Your task to perform on an android device: install app "Expedia: Hotels, Flights & Car" Image 0: 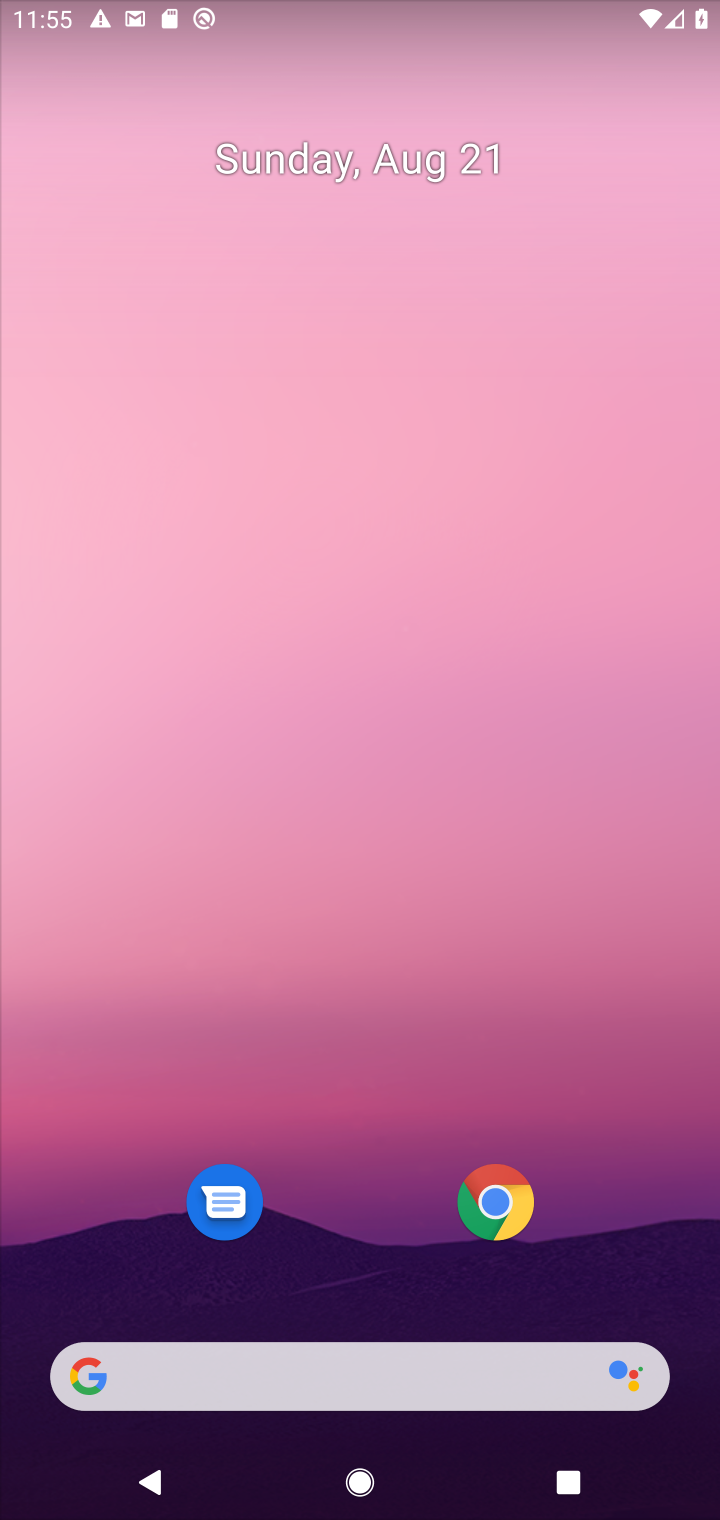
Step 0: drag from (351, 959) to (353, 33)
Your task to perform on an android device: install app "Expedia: Hotels, Flights & Car" Image 1: 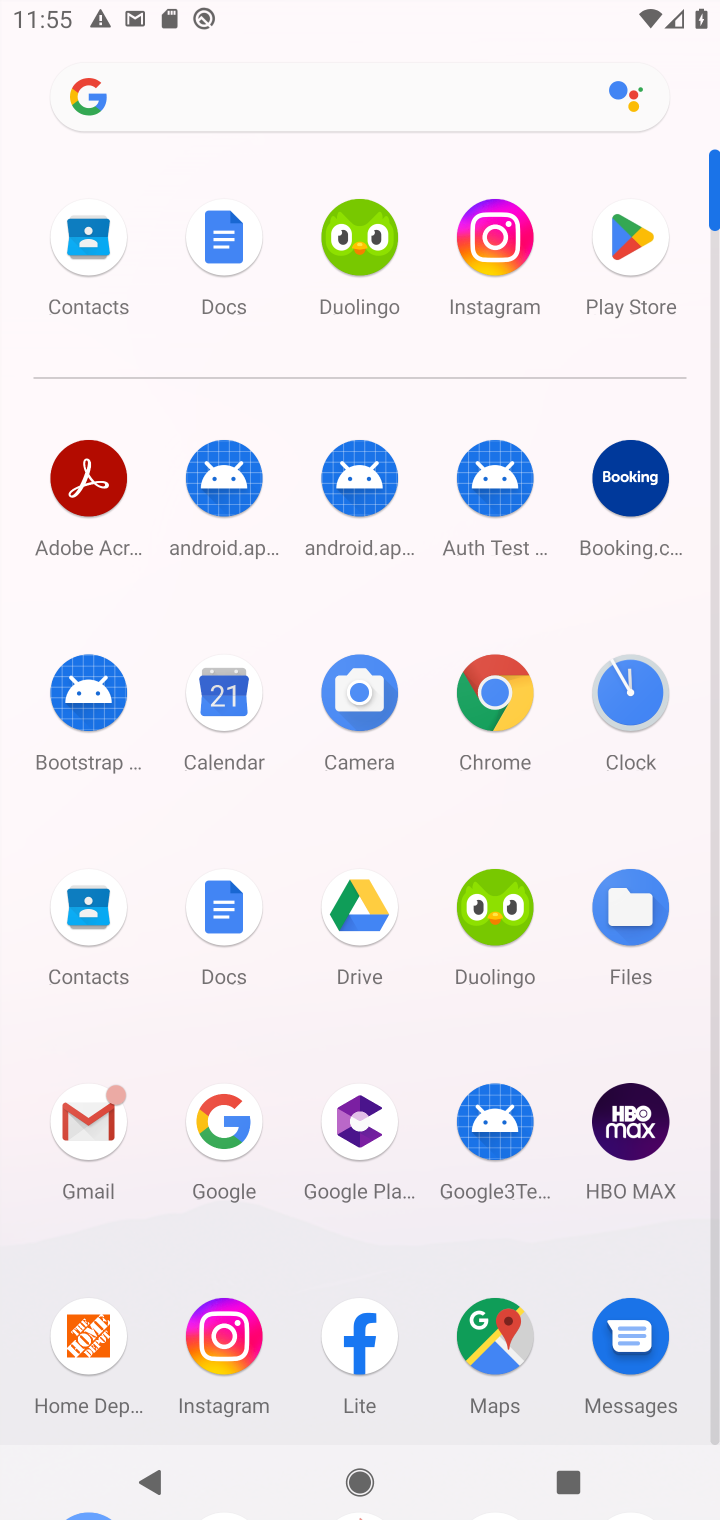
Step 1: click (626, 236)
Your task to perform on an android device: install app "Expedia: Hotels, Flights & Car" Image 2: 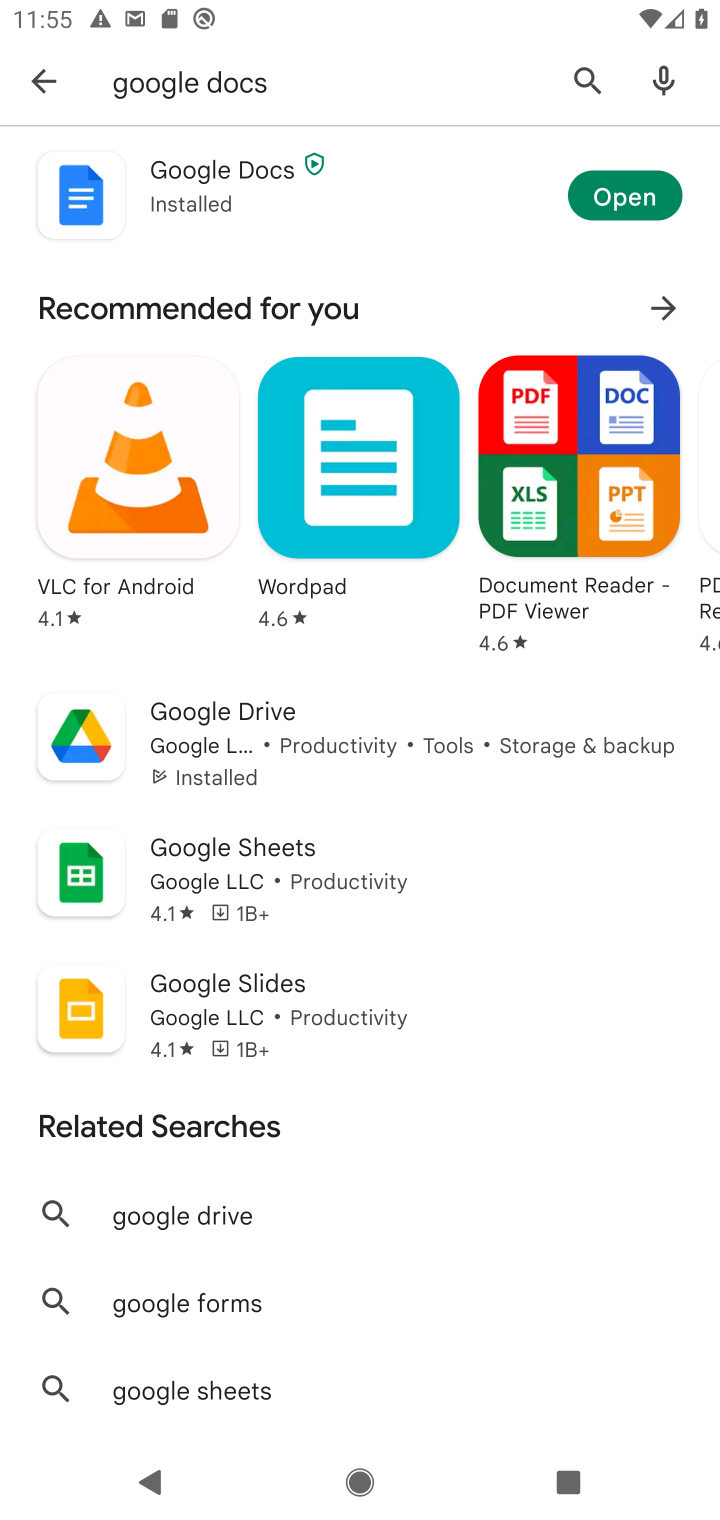
Step 2: click (573, 75)
Your task to perform on an android device: install app "Expedia: Hotels, Flights & Car" Image 3: 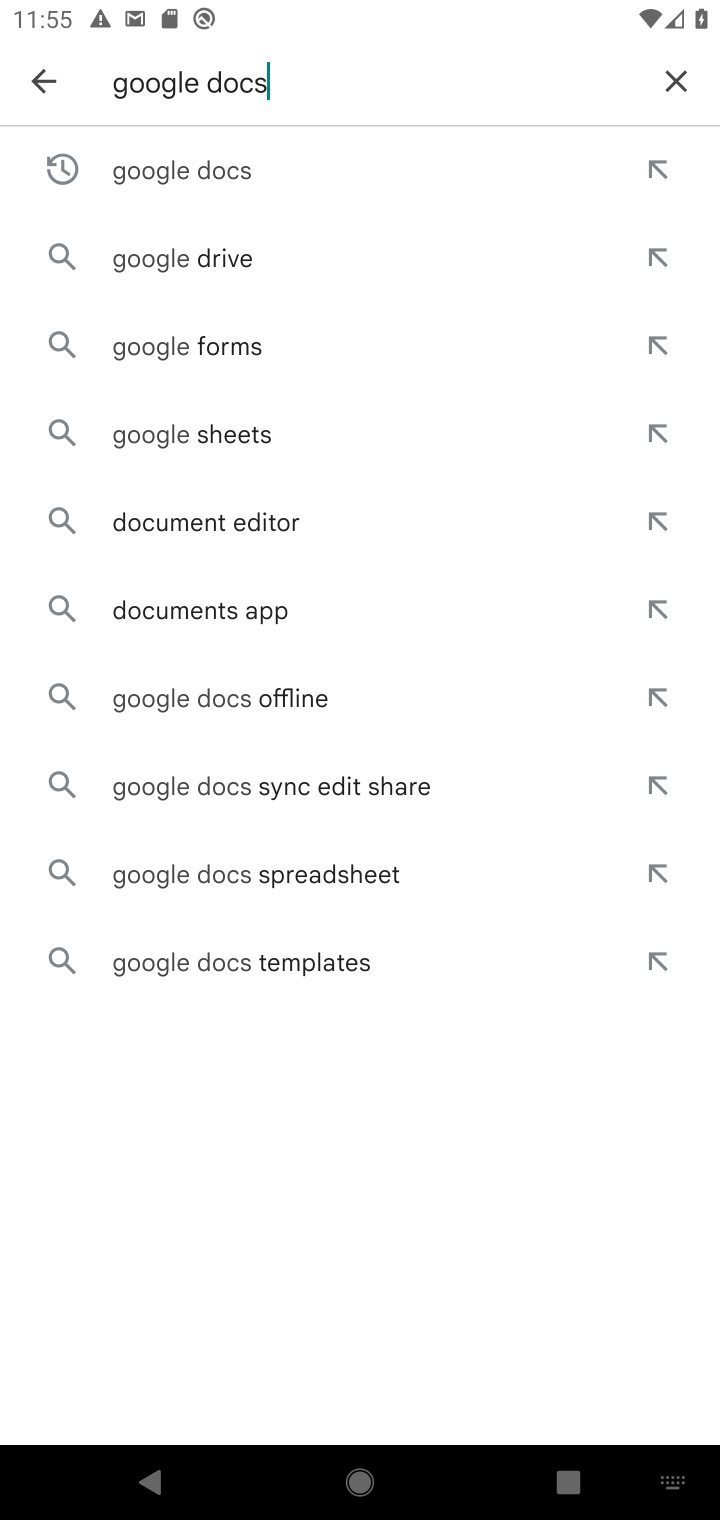
Step 3: click (672, 73)
Your task to perform on an android device: install app "Expedia: Hotels, Flights & Car" Image 4: 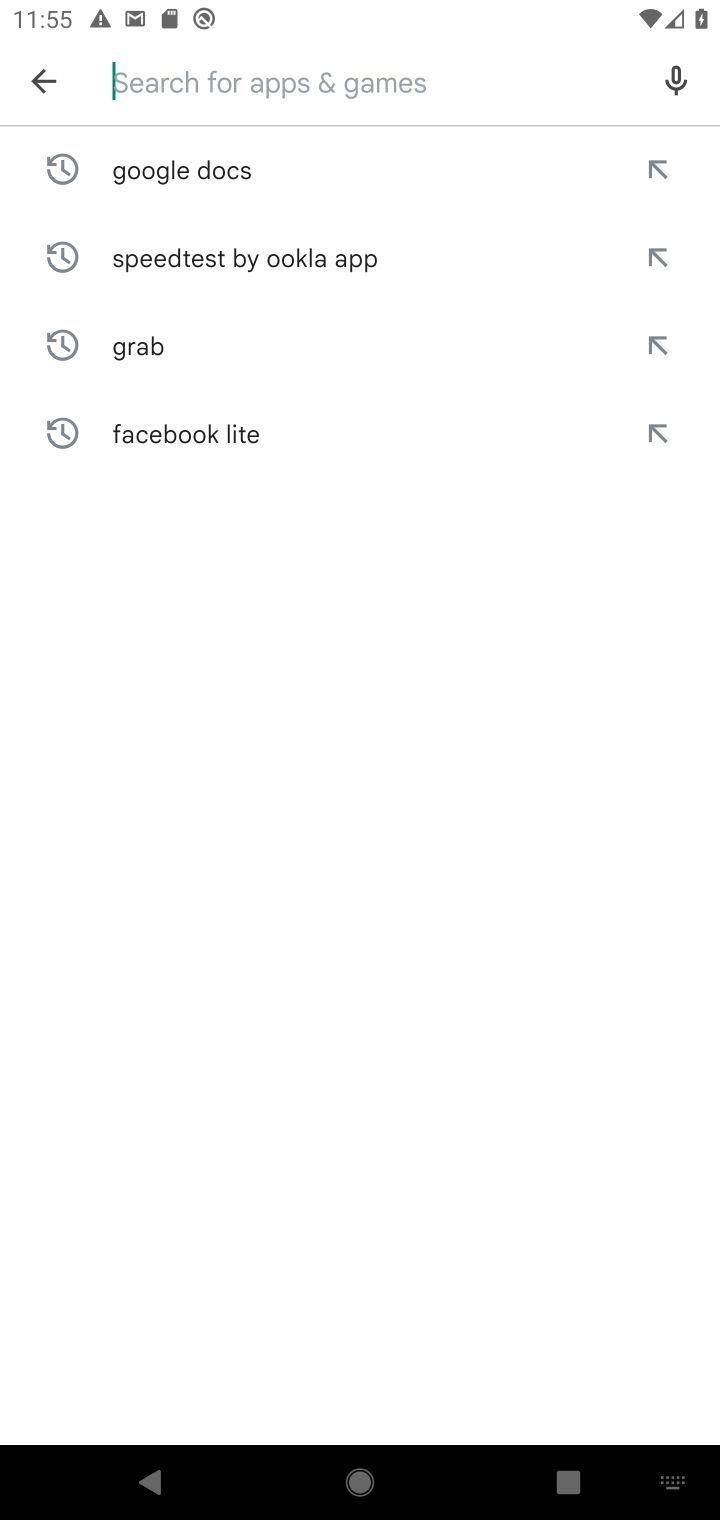
Step 4: type "Expedia: Hotels, Flights & Car"
Your task to perform on an android device: install app "Expedia: Hotels, Flights & Car" Image 5: 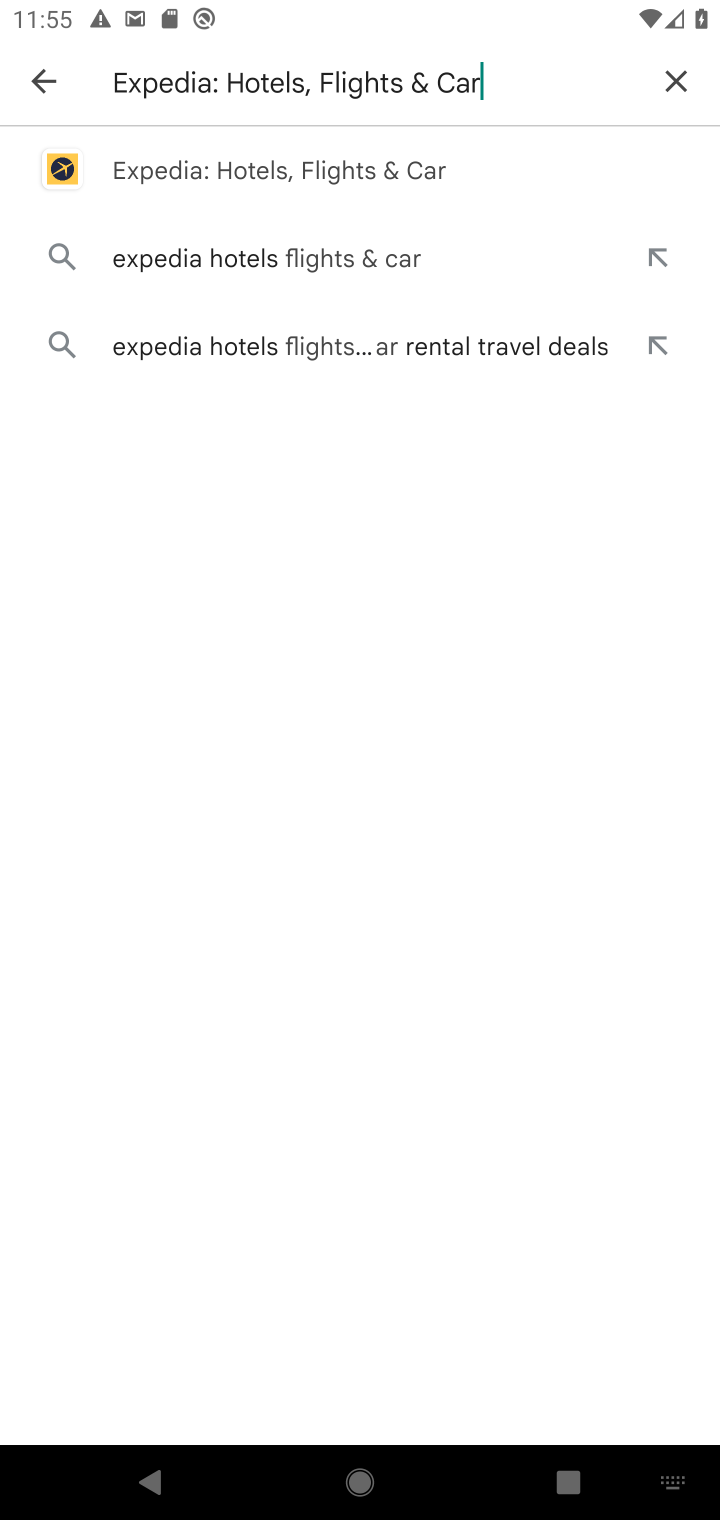
Step 5: click (318, 168)
Your task to perform on an android device: install app "Expedia: Hotels, Flights & Car" Image 6: 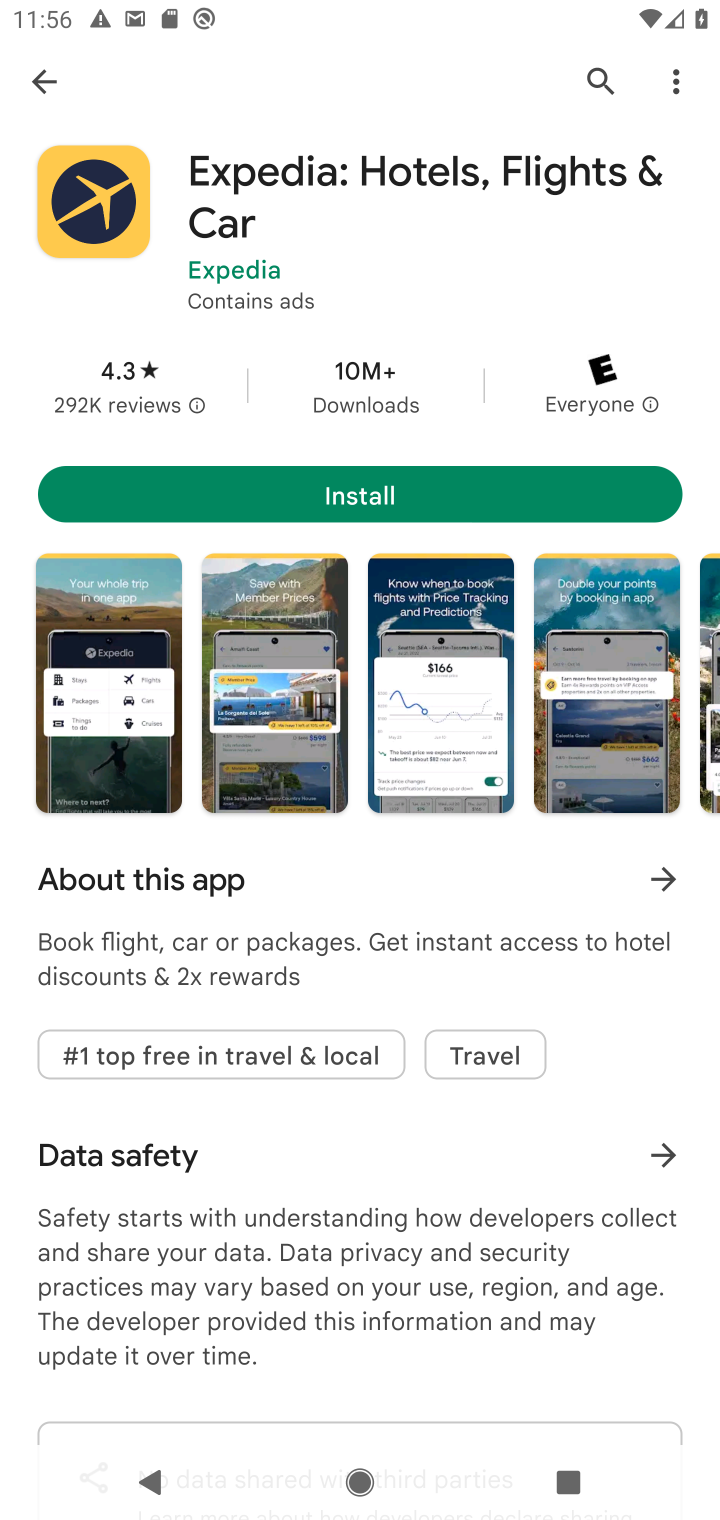
Step 6: click (366, 487)
Your task to perform on an android device: install app "Expedia: Hotels, Flights & Car" Image 7: 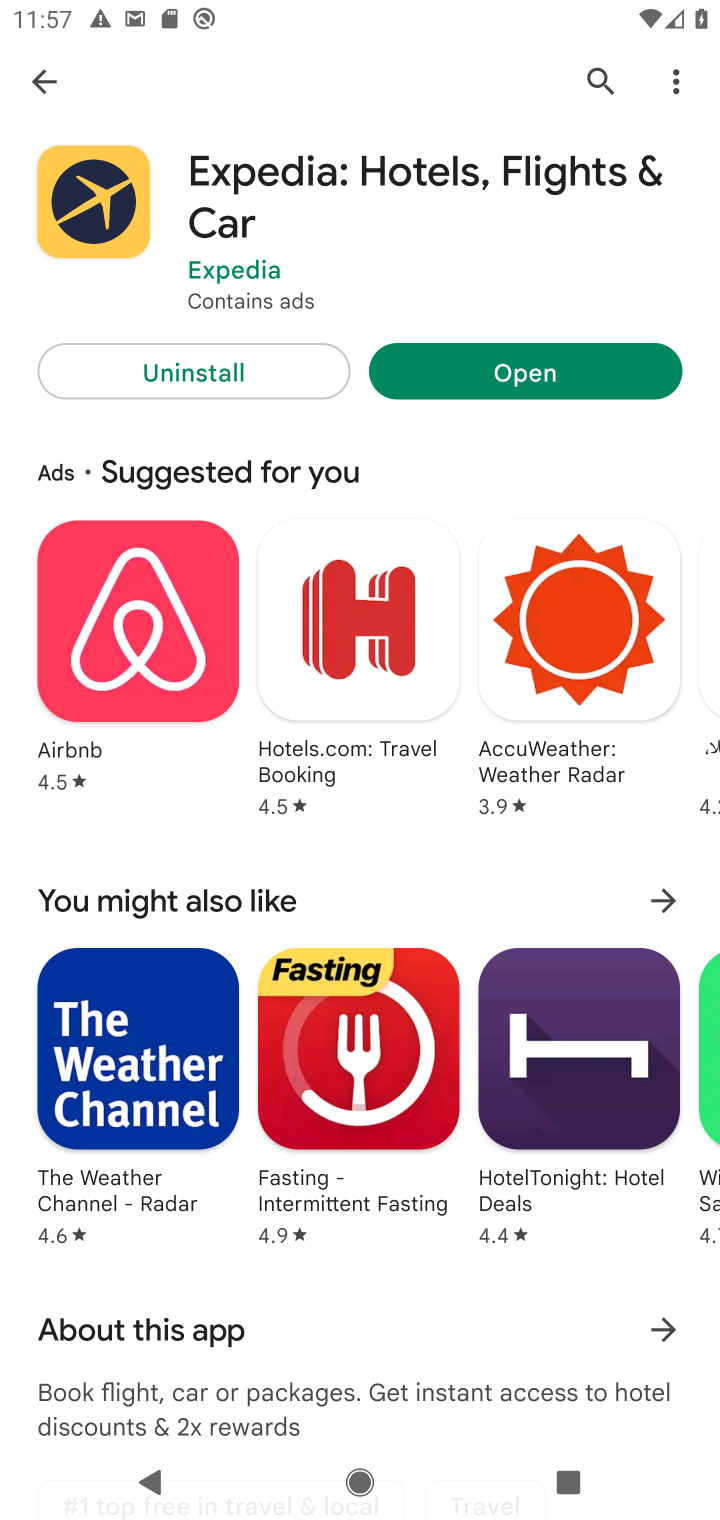
Step 7: task complete